Your task to perform on an android device: open chrome and create a bookmark for the current page Image 0: 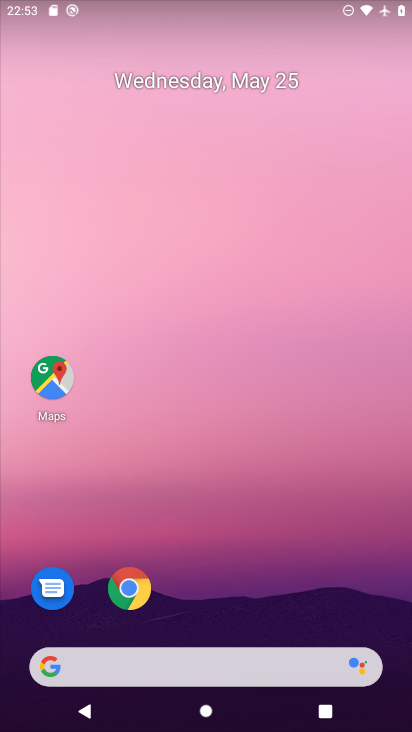
Step 0: drag from (257, 622) to (249, 198)
Your task to perform on an android device: open chrome and create a bookmark for the current page Image 1: 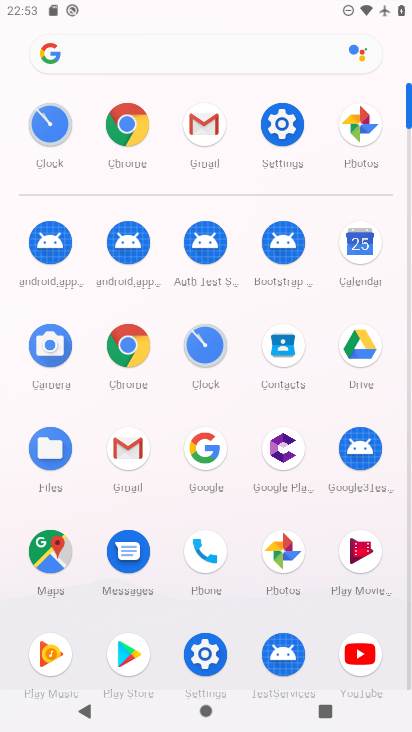
Step 1: click (122, 350)
Your task to perform on an android device: open chrome and create a bookmark for the current page Image 2: 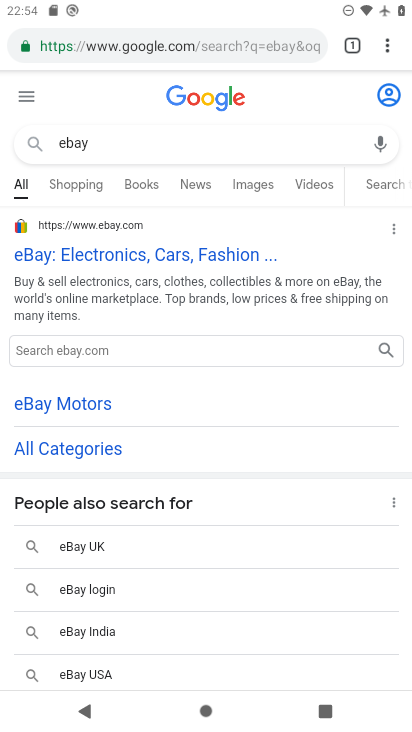
Step 2: click (388, 42)
Your task to perform on an android device: open chrome and create a bookmark for the current page Image 3: 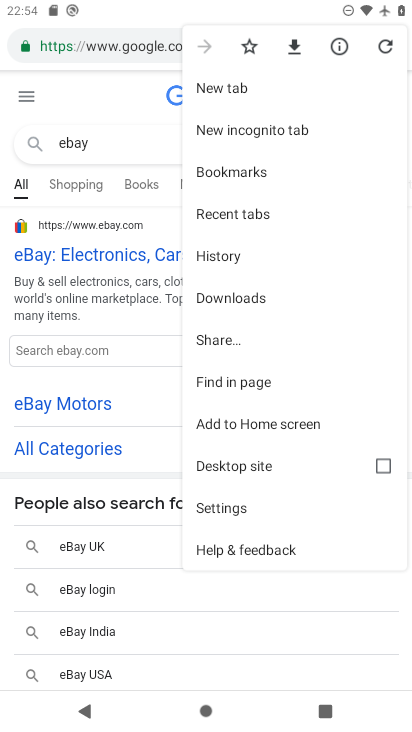
Step 3: click (249, 35)
Your task to perform on an android device: open chrome and create a bookmark for the current page Image 4: 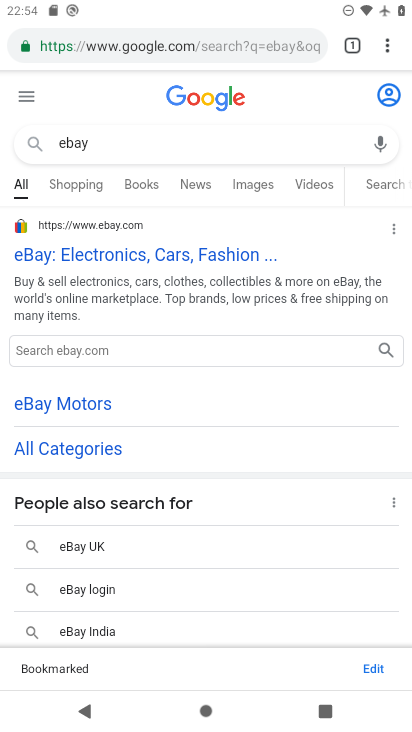
Step 4: task complete